Your task to perform on an android device: Open the map Image 0: 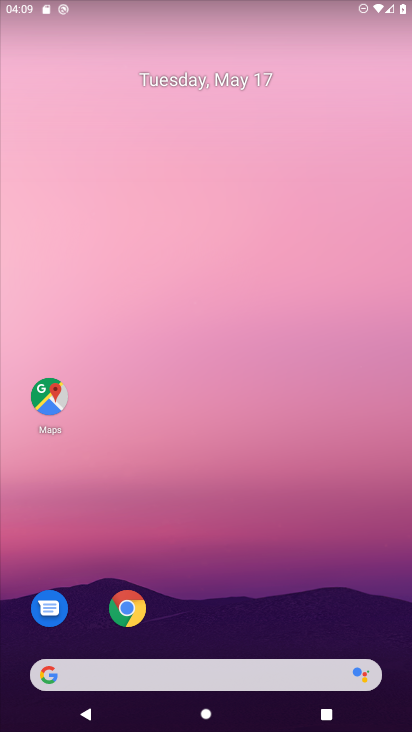
Step 0: click (51, 397)
Your task to perform on an android device: Open the map Image 1: 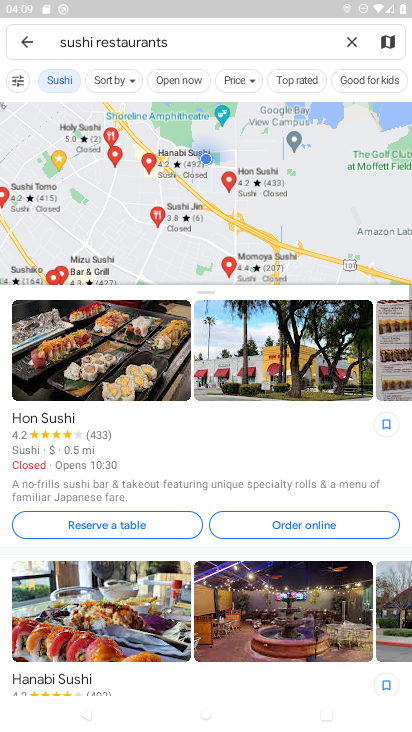
Step 1: click (356, 44)
Your task to perform on an android device: Open the map Image 2: 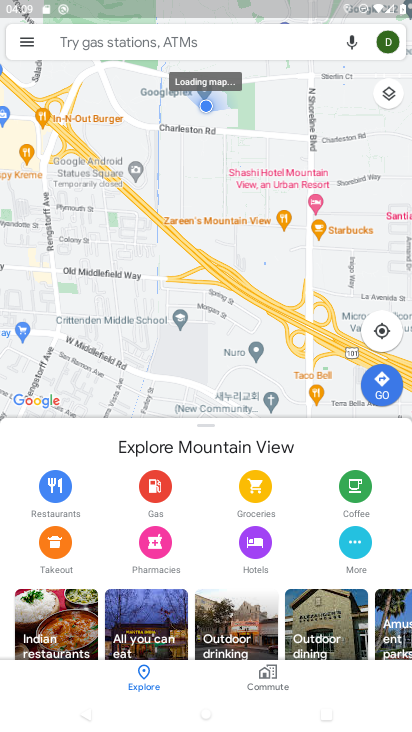
Step 2: task complete